Your task to perform on an android device: turn on data saver in the chrome app Image 0: 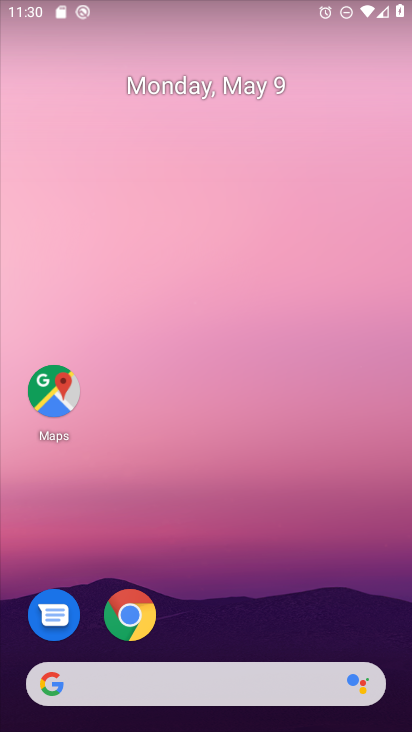
Step 0: drag from (268, 713) to (223, 265)
Your task to perform on an android device: turn on data saver in the chrome app Image 1: 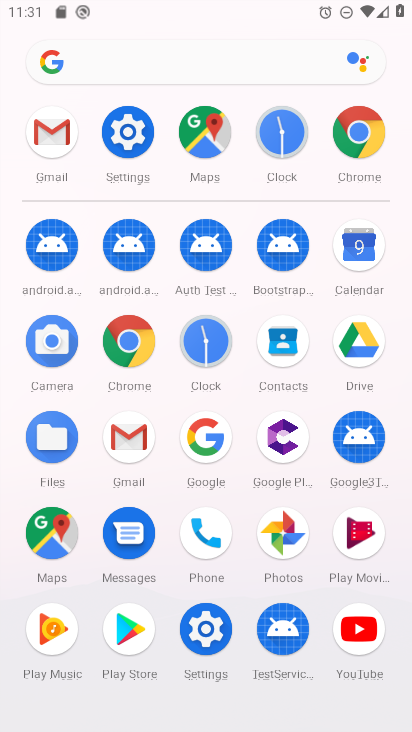
Step 1: click (353, 128)
Your task to perform on an android device: turn on data saver in the chrome app Image 2: 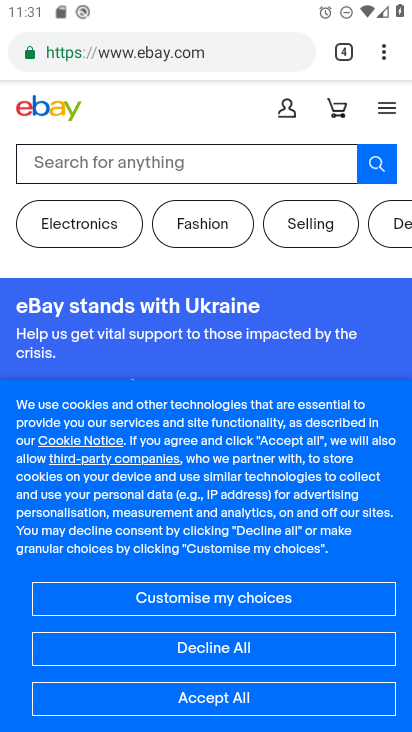
Step 2: click (388, 56)
Your task to perform on an android device: turn on data saver in the chrome app Image 3: 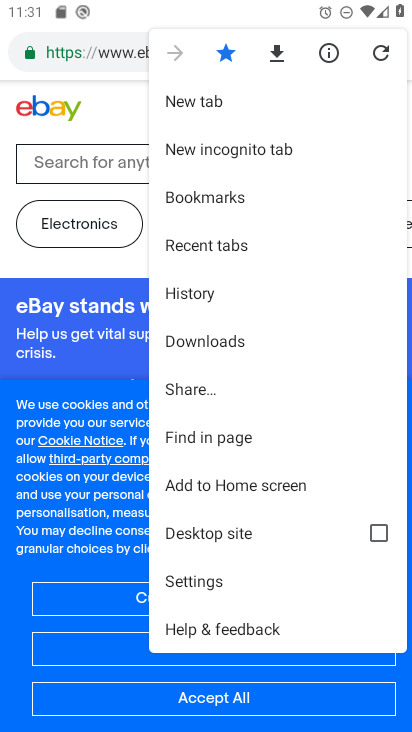
Step 3: click (214, 591)
Your task to perform on an android device: turn on data saver in the chrome app Image 4: 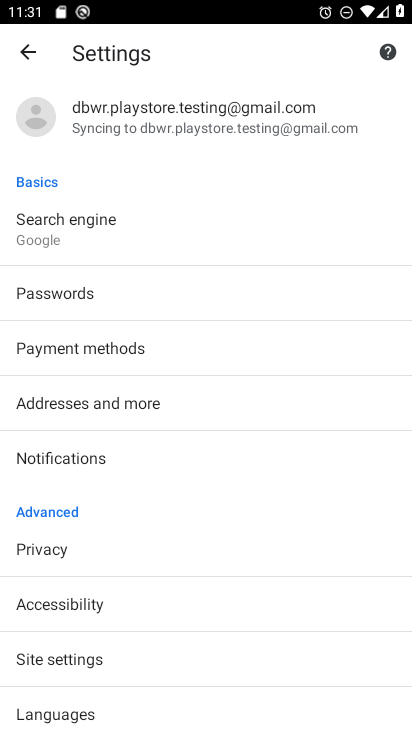
Step 4: drag from (79, 627) to (96, 490)
Your task to perform on an android device: turn on data saver in the chrome app Image 5: 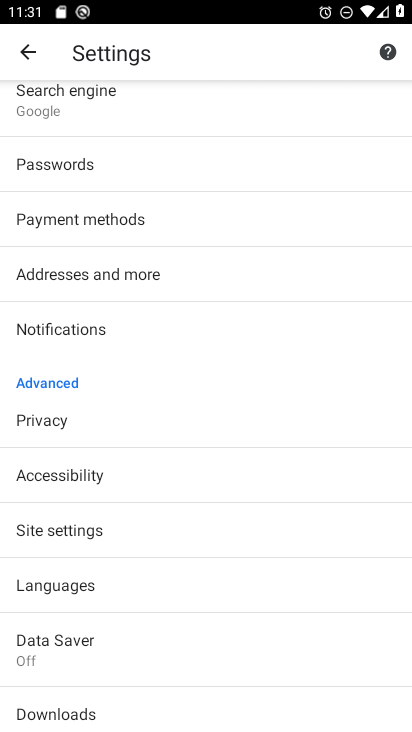
Step 5: click (59, 640)
Your task to perform on an android device: turn on data saver in the chrome app Image 6: 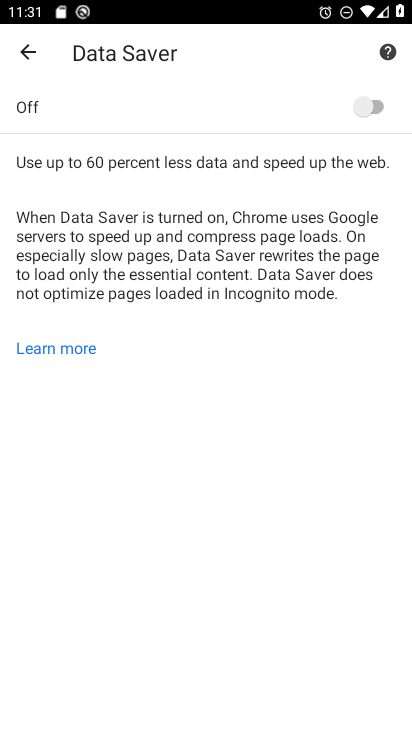
Step 6: click (344, 105)
Your task to perform on an android device: turn on data saver in the chrome app Image 7: 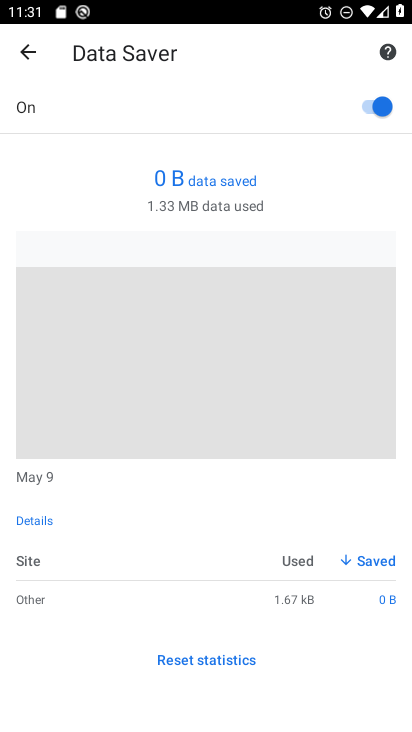
Step 7: task complete